Your task to perform on an android device: Search for "razer blade" on walmart.com, select the first entry, add it to the cart, then select checkout. Image 0: 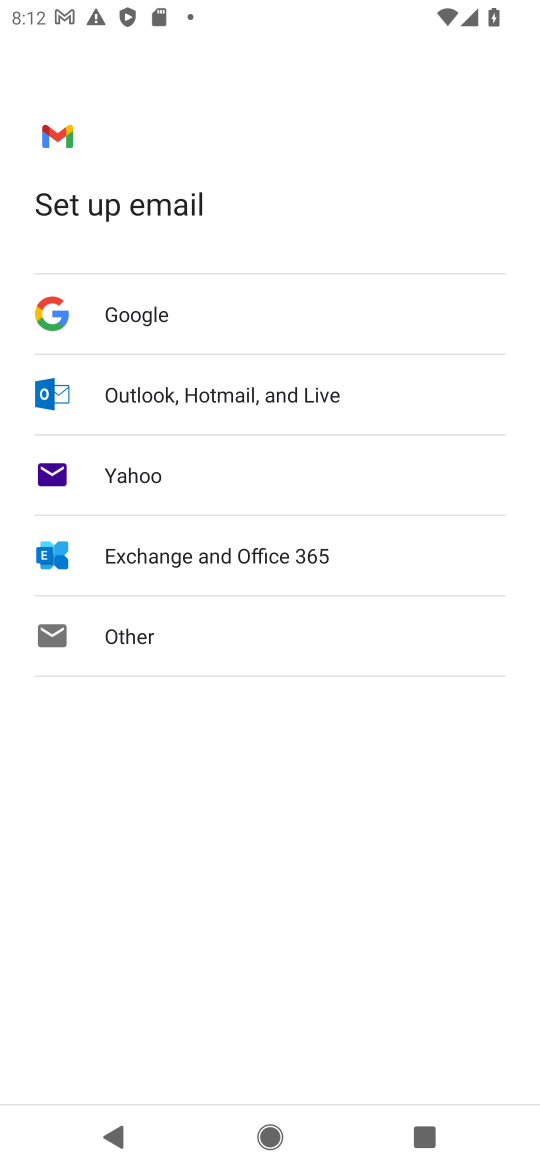
Step 0: press home button
Your task to perform on an android device: Search for "razer blade" on walmart.com, select the first entry, add it to the cart, then select checkout. Image 1: 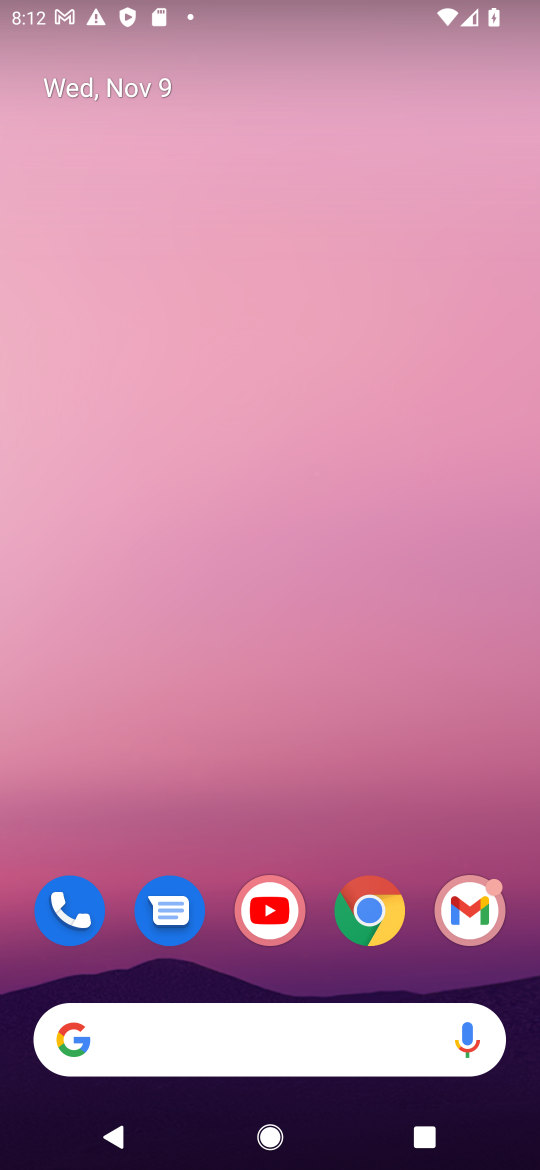
Step 1: click (376, 919)
Your task to perform on an android device: Search for "razer blade" on walmart.com, select the first entry, add it to the cart, then select checkout. Image 2: 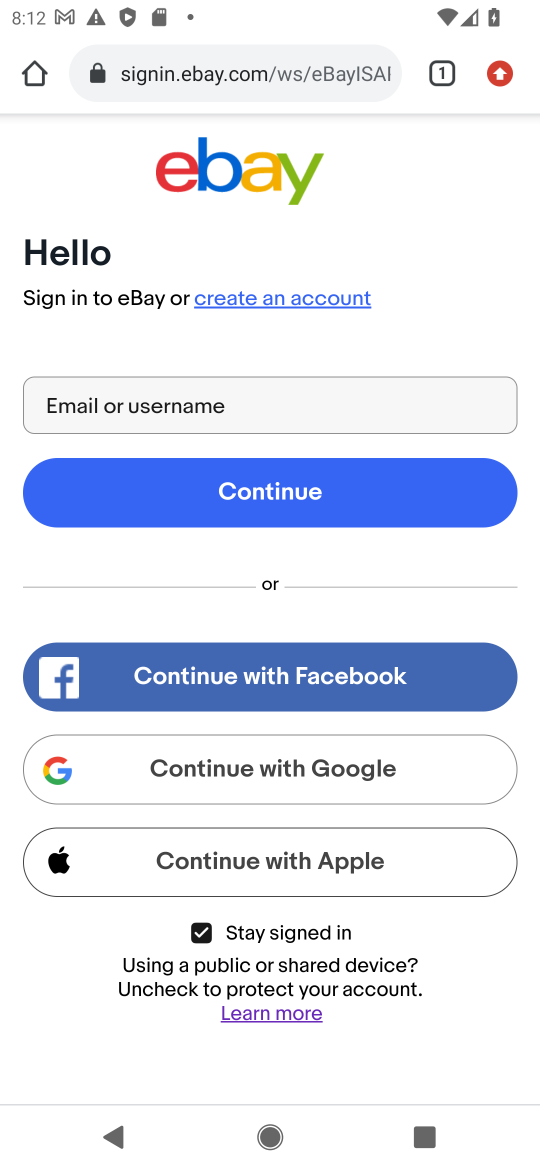
Step 2: click (245, 75)
Your task to perform on an android device: Search for "razer blade" on walmart.com, select the first entry, add it to the cart, then select checkout. Image 3: 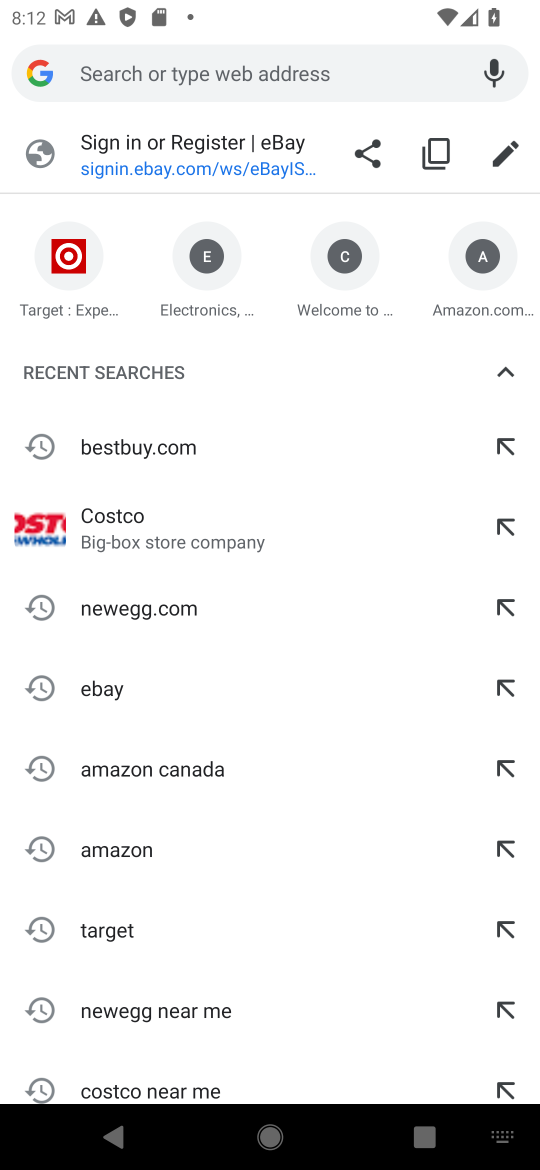
Step 3: type "walmart.com"
Your task to perform on an android device: Search for "razer blade" on walmart.com, select the first entry, add it to the cart, then select checkout. Image 4: 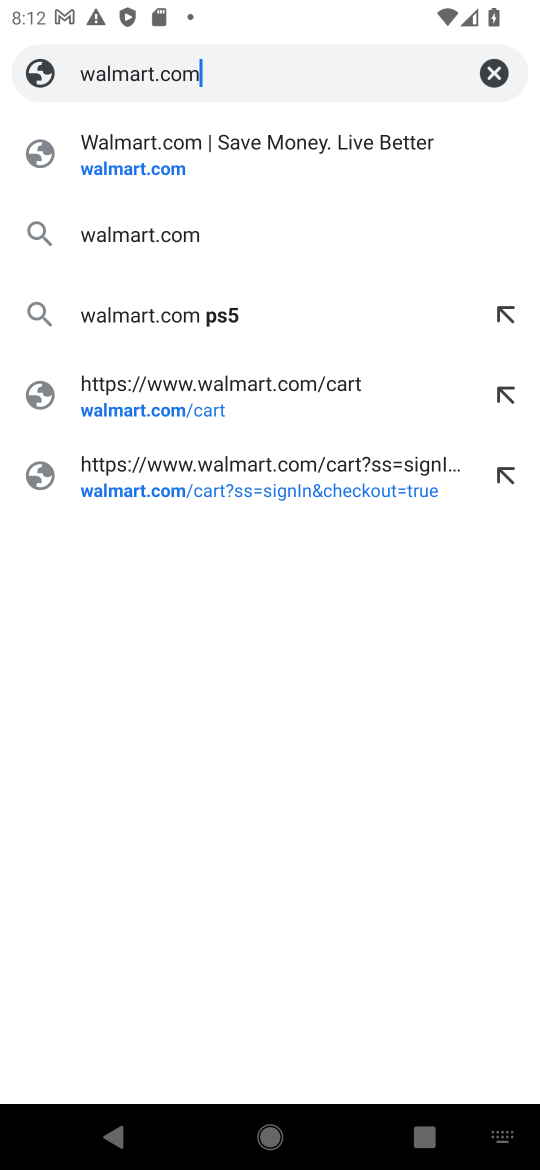
Step 4: click (144, 176)
Your task to perform on an android device: Search for "razer blade" on walmart.com, select the first entry, add it to the cart, then select checkout. Image 5: 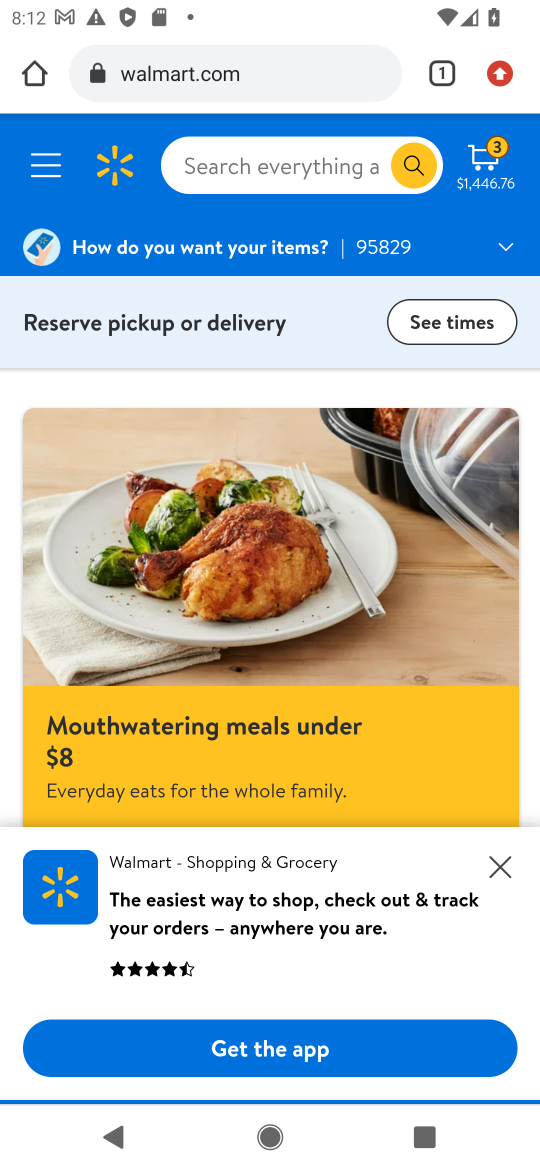
Step 5: click (240, 155)
Your task to perform on an android device: Search for "razer blade" on walmart.com, select the first entry, add it to the cart, then select checkout. Image 6: 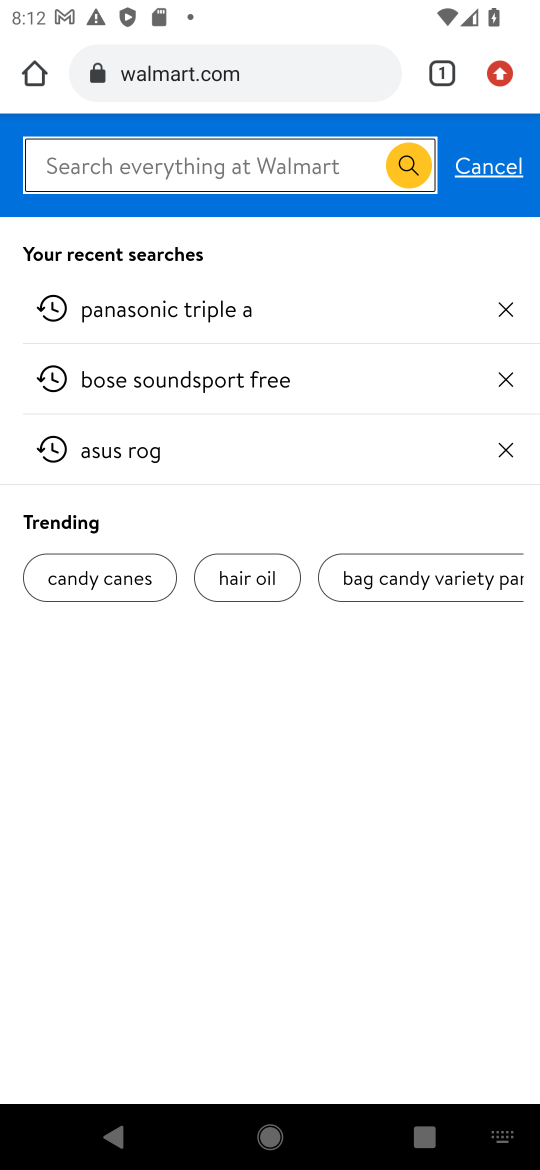
Step 6: type "razer blade"
Your task to perform on an android device: Search for "razer blade" on walmart.com, select the first entry, add it to the cart, then select checkout. Image 7: 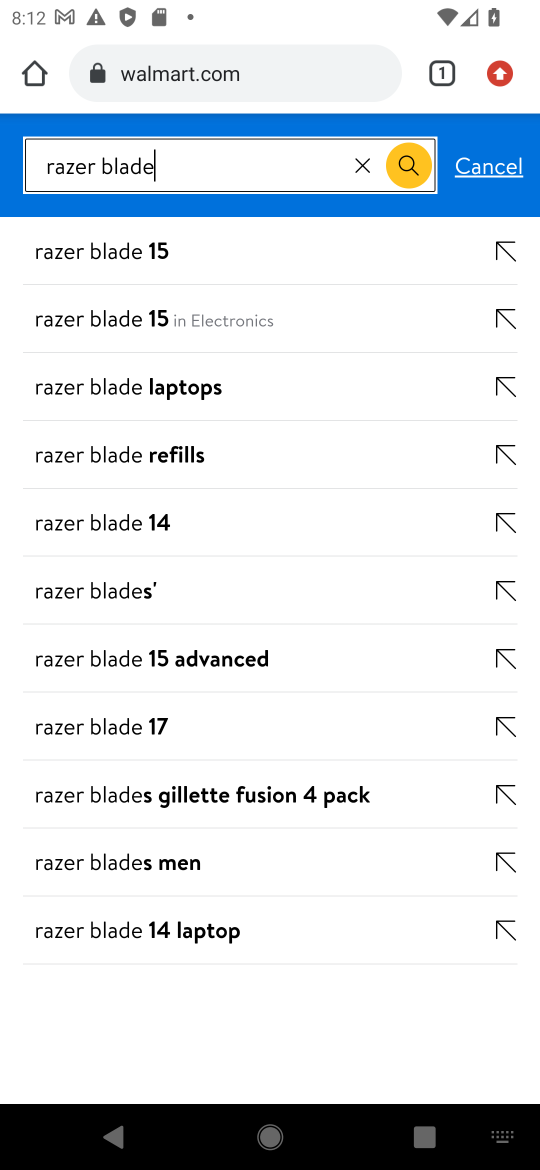
Step 7: click (405, 163)
Your task to perform on an android device: Search for "razer blade" on walmart.com, select the first entry, add it to the cart, then select checkout. Image 8: 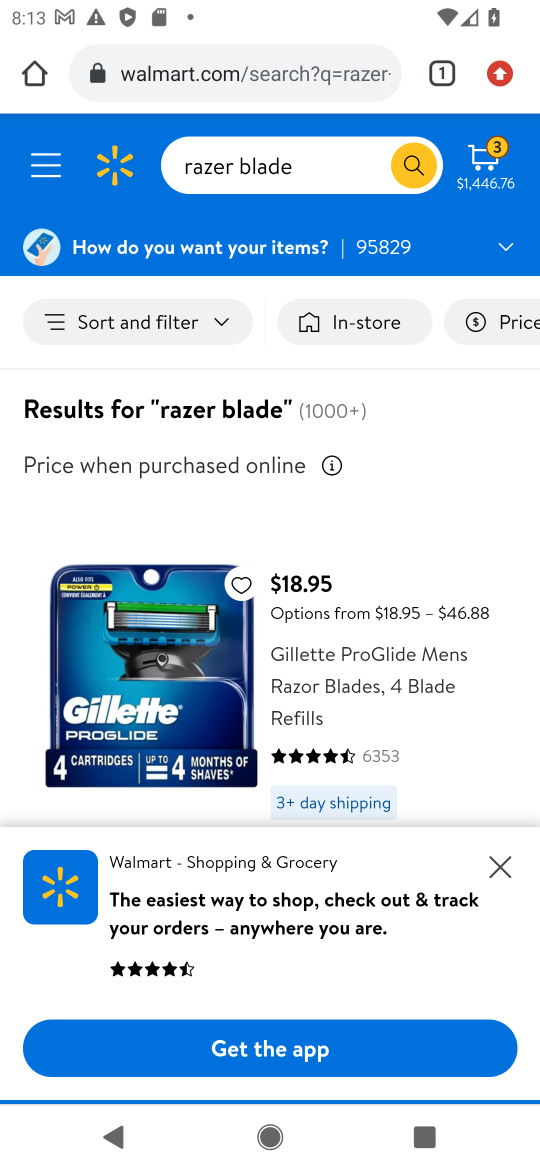
Step 8: task complete